Your task to perform on an android device: Open the stopwatch Image 0: 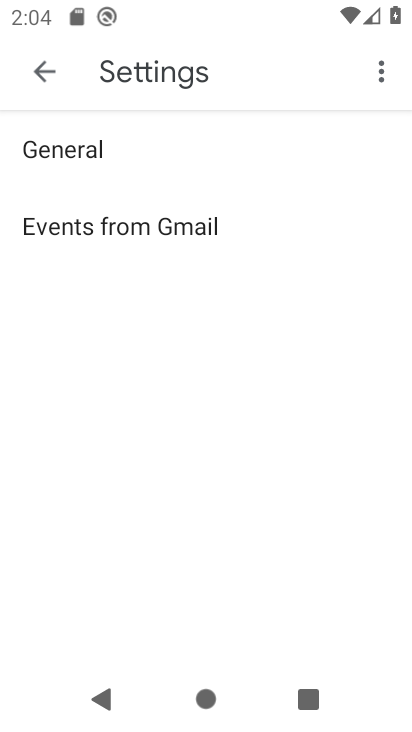
Step 0: press home button
Your task to perform on an android device: Open the stopwatch Image 1: 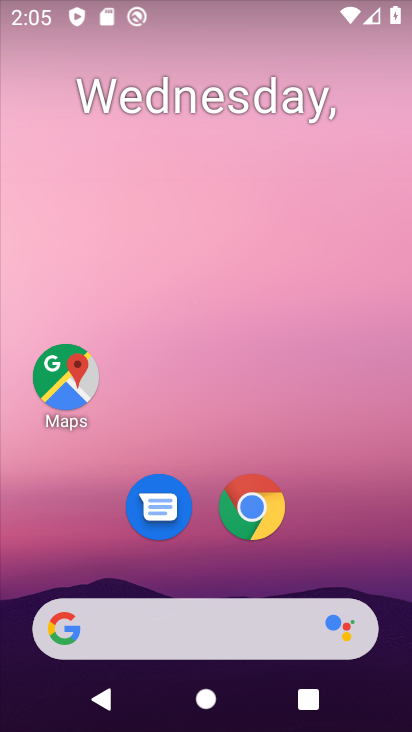
Step 1: drag from (373, 558) to (322, 196)
Your task to perform on an android device: Open the stopwatch Image 2: 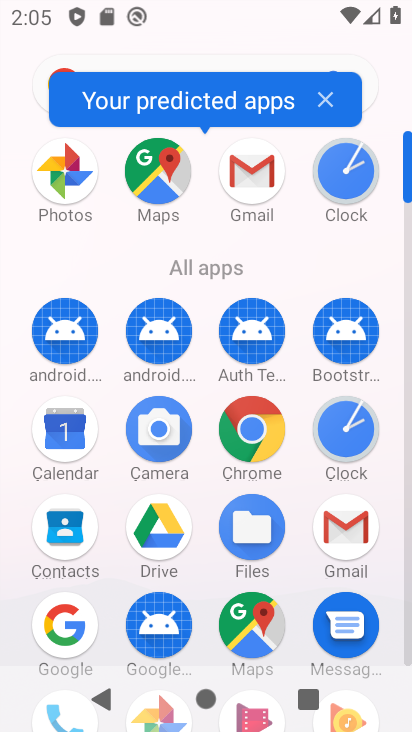
Step 2: click (336, 446)
Your task to perform on an android device: Open the stopwatch Image 3: 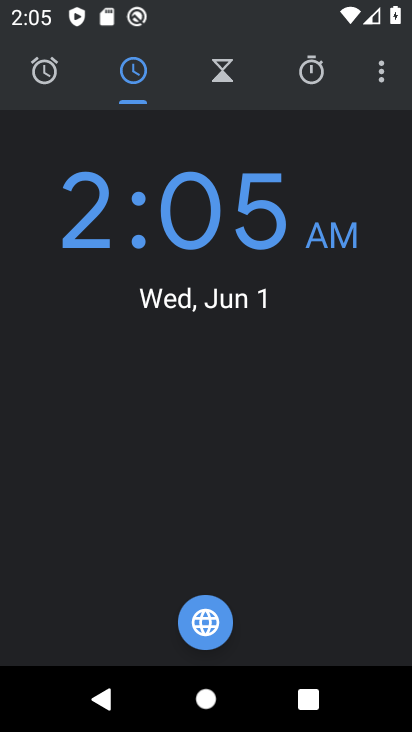
Step 3: click (386, 97)
Your task to perform on an android device: Open the stopwatch Image 4: 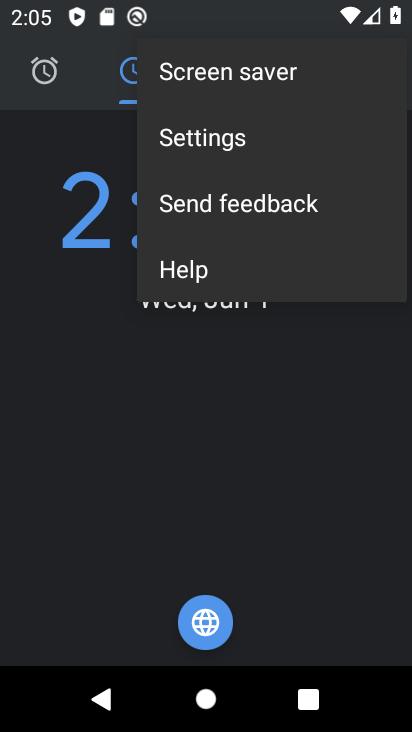
Step 4: click (86, 85)
Your task to perform on an android device: Open the stopwatch Image 5: 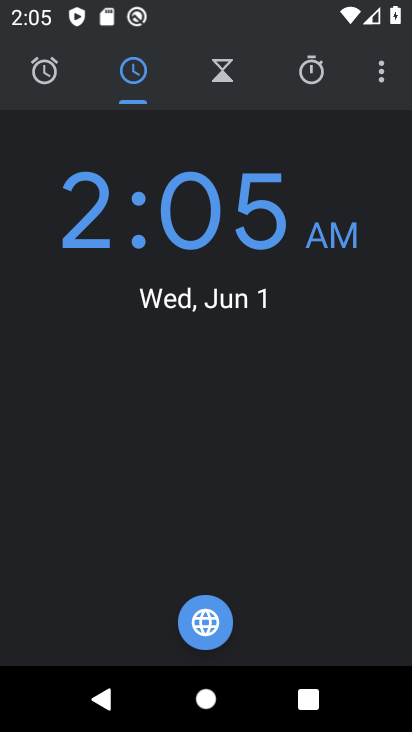
Step 5: click (319, 64)
Your task to perform on an android device: Open the stopwatch Image 6: 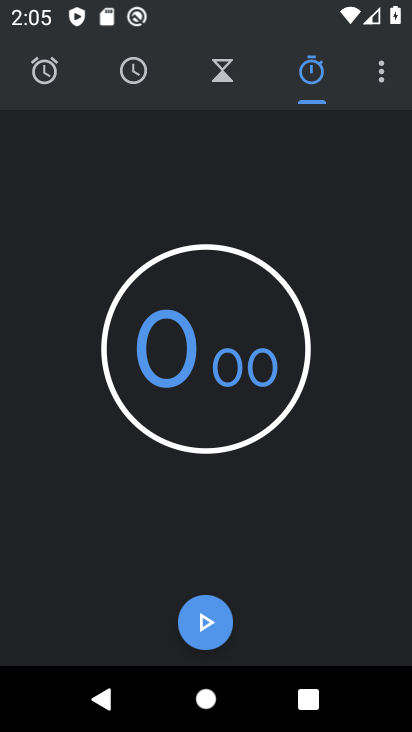
Step 6: task complete